Your task to perform on an android device: make emails show in primary in the gmail app Image 0: 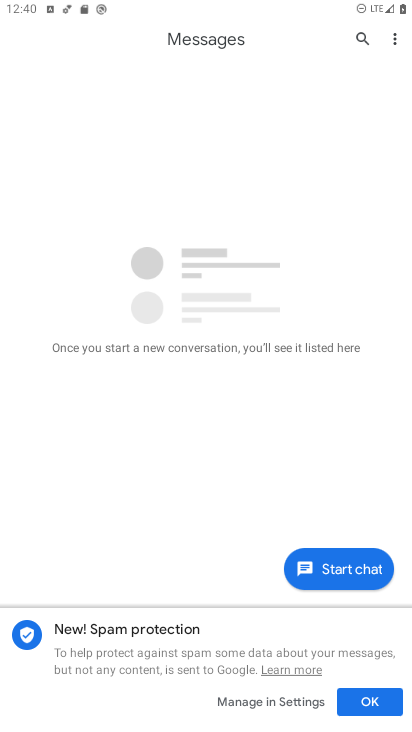
Step 0: press home button
Your task to perform on an android device: make emails show in primary in the gmail app Image 1: 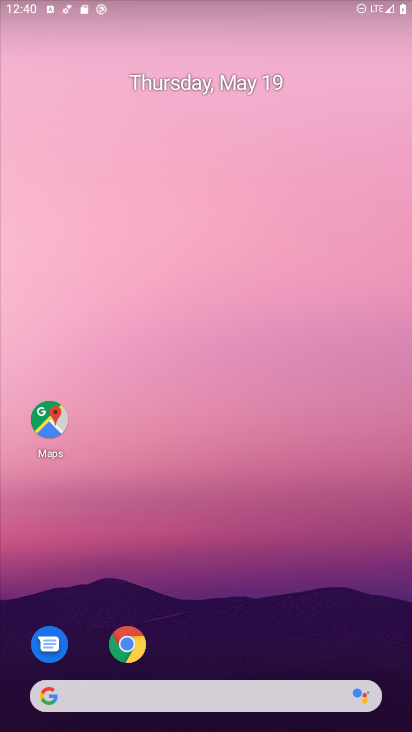
Step 1: drag from (367, 638) to (252, 68)
Your task to perform on an android device: make emails show in primary in the gmail app Image 2: 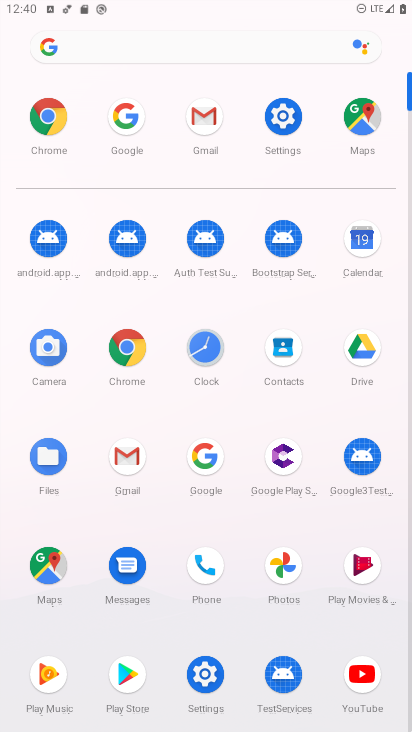
Step 2: click (126, 461)
Your task to perform on an android device: make emails show in primary in the gmail app Image 3: 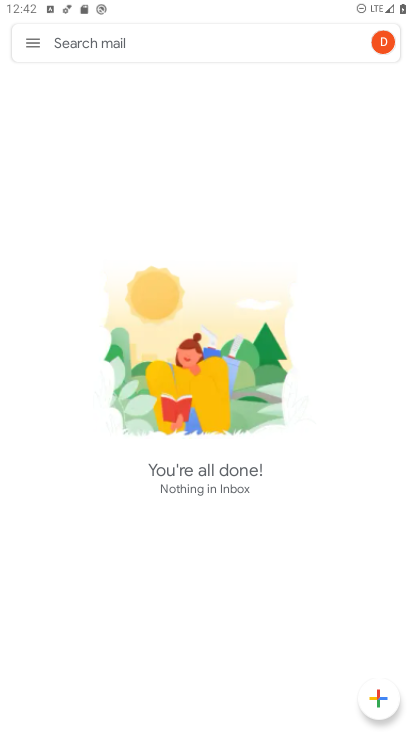
Step 3: task complete